Your task to perform on an android device: check battery use Image 0: 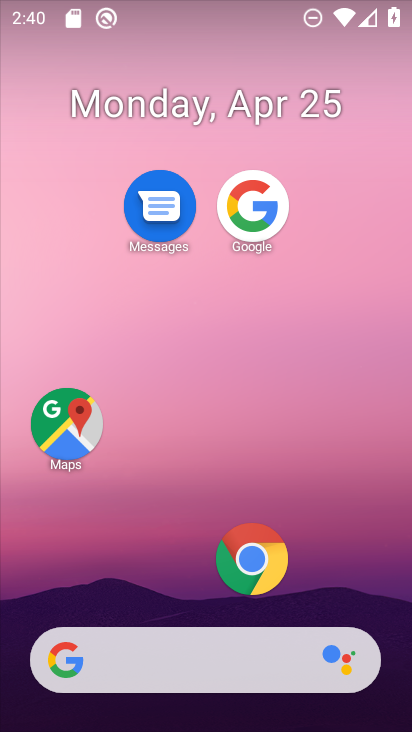
Step 0: drag from (154, 567) to (156, 93)
Your task to perform on an android device: check battery use Image 1: 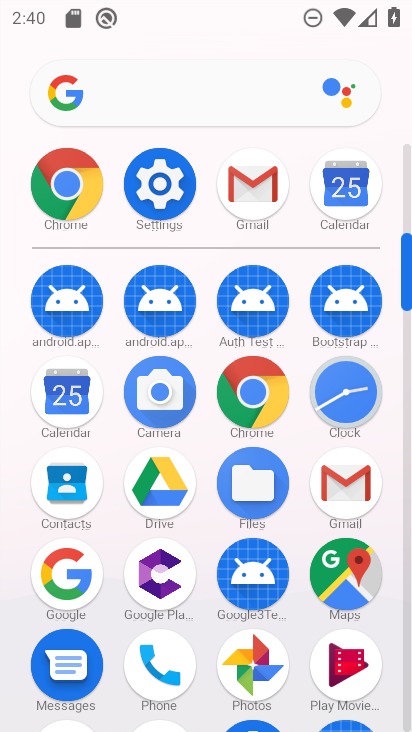
Step 1: click (161, 180)
Your task to perform on an android device: check battery use Image 2: 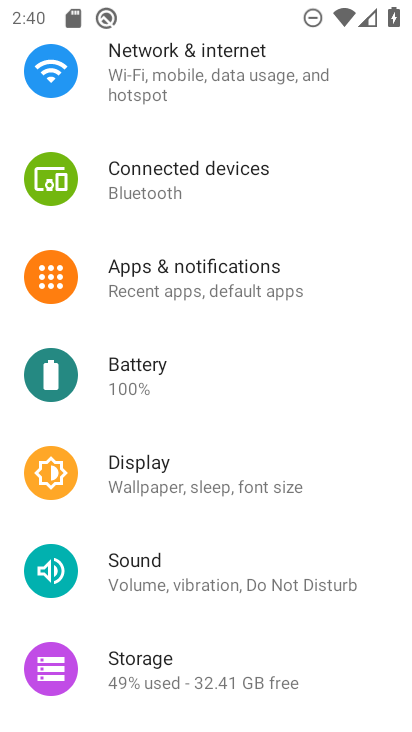
Step 2: drag from (219, 572) to (173, 383)
Your task to perform on an android device: check battery use Image 3: 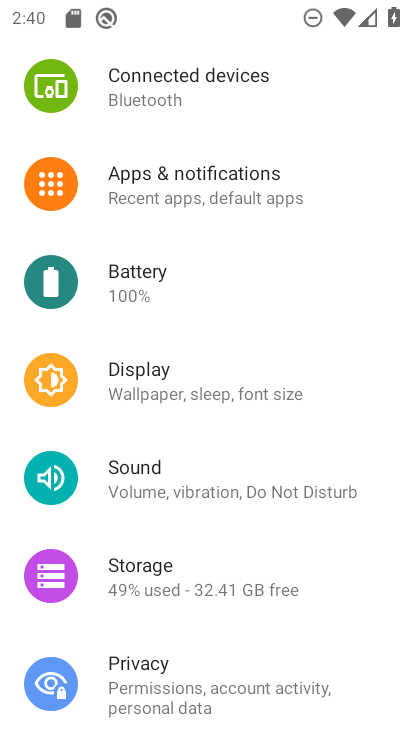
Step 3: click (153, 283)
Your task to perform on an android device: check battery use Image 4: 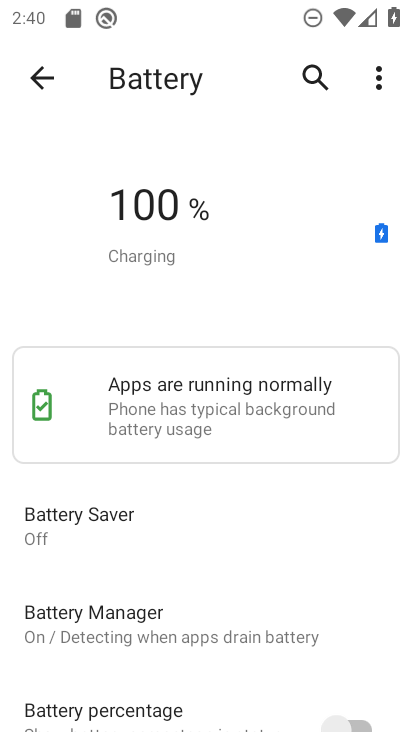
Step 4: click (368, 75)
Your task to perform on an android device: check battery use Image 5: 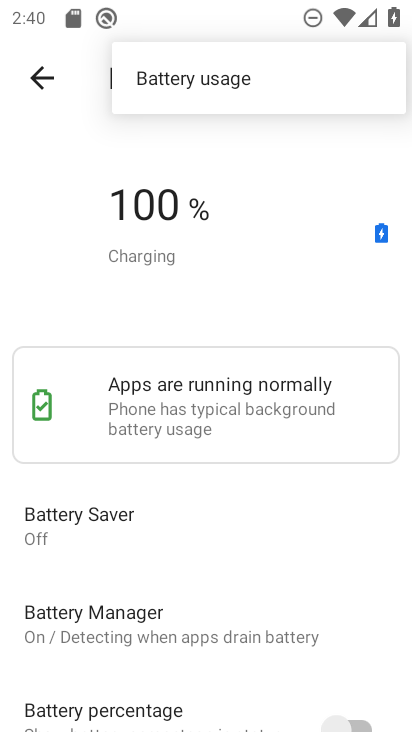
Step 5: click (224, 77)
Your task to perform on an android device: check battery use Image 6: 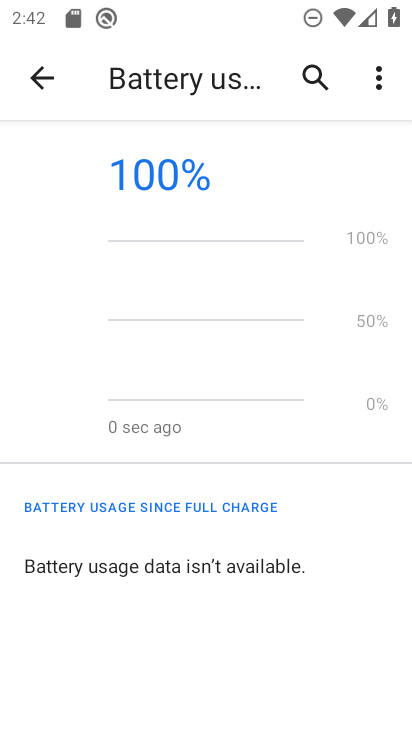
Step 6: task complete